Your task to perform on an android device: Open the stopwatch Image 0: 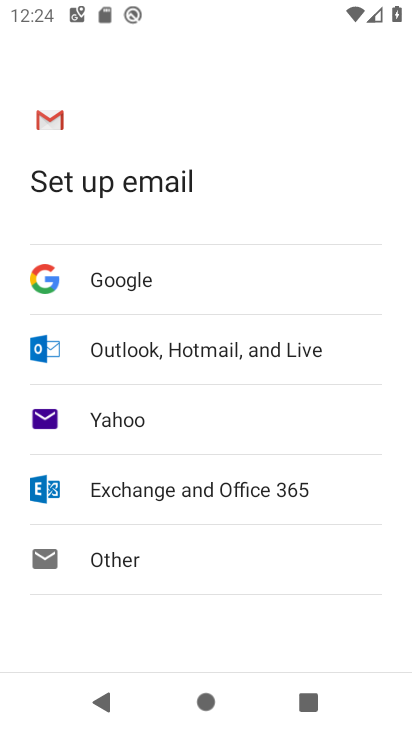
Step 0: press home button
Your task to perform on an android device: Open the stopwatch Image 1: 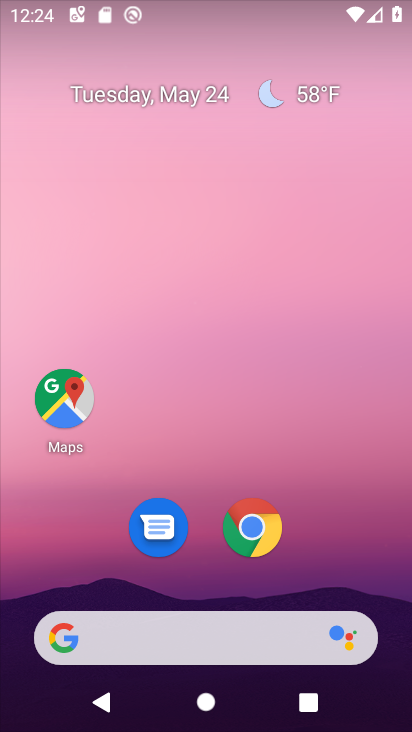
Step 1: drag from (392, 594) to (327, 242)
Your task to perform on an android device: Open the stopwatch Image 2: 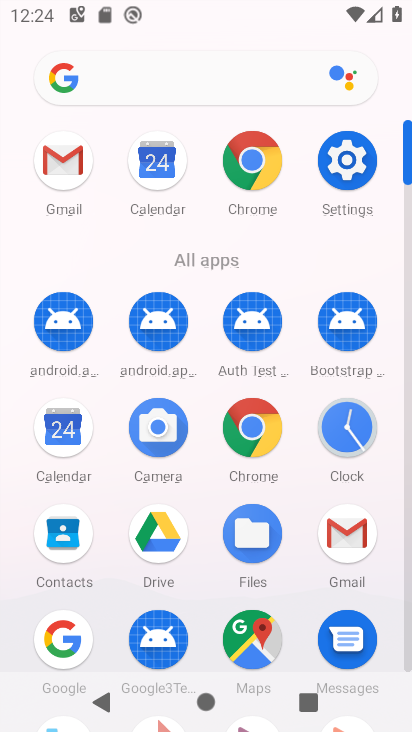
Step 2: click (362, 415)
Your task to perform on an android device: Open the stopwatch Image 3: 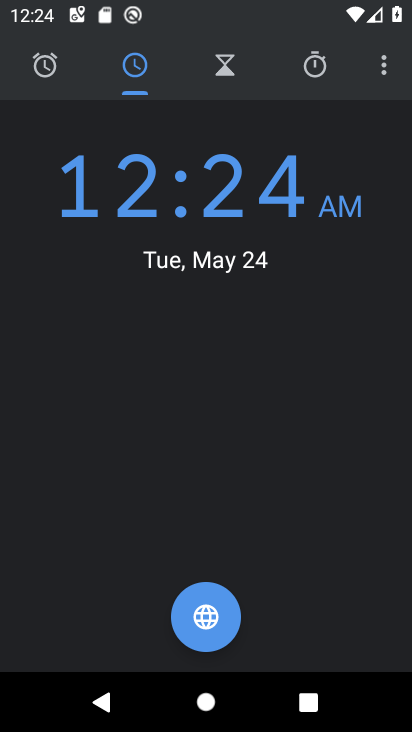
Step 3: click (327, 63)
Your task to perform on an android device: Open the stopwatch Image 4: 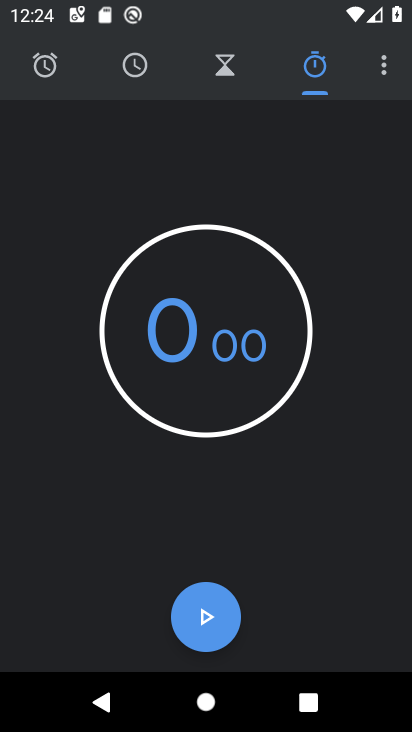
Step 4: task complete